Your task to perform on an android device: find photos in the google photos app Image 0: 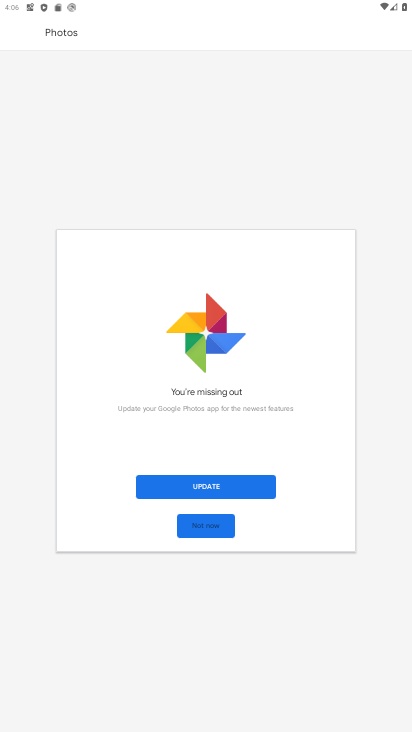
Step 0: press home button
Your task to perform on an android device: find photos in the google photos app Image 1: 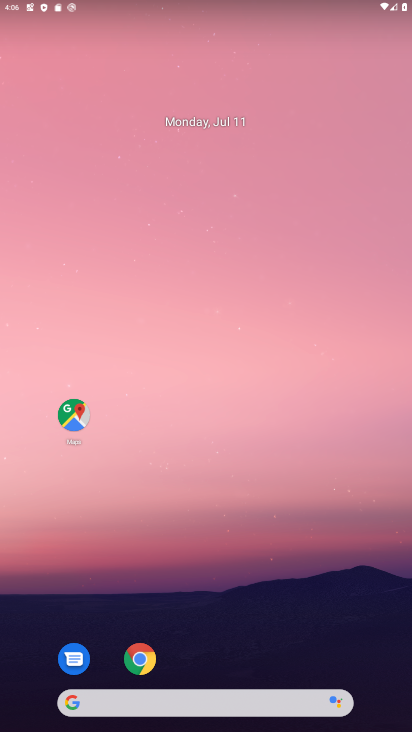
Step 1: drag from (166, 302) to (255, 595)
Your task to perform on an android device: find photos in the google photos app Image 2: 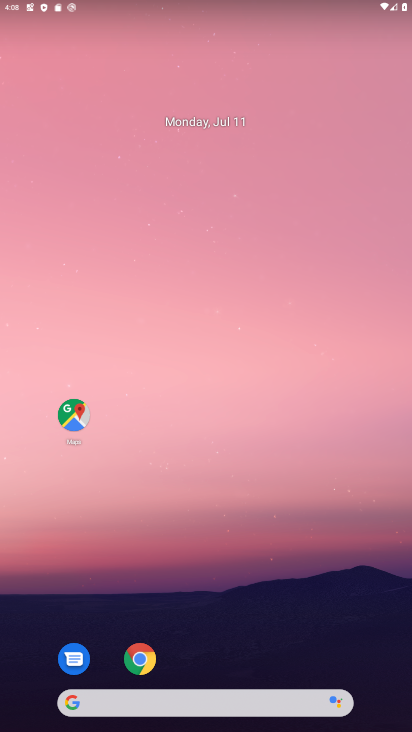
Step 2: drag from (250, 120) to (185, 40)
Your task to perform on an android device: find photos in the google photos app Image 3: 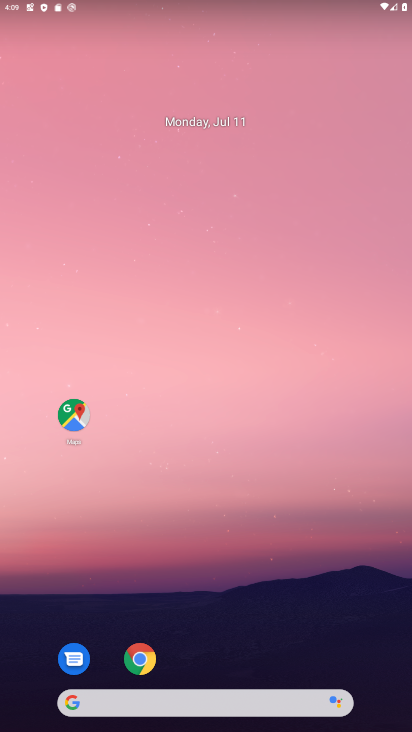
Step 3: drag from (179, 564) to (166, 179)
Your task to perform on an android device: find photos in the google photos app Image 4: 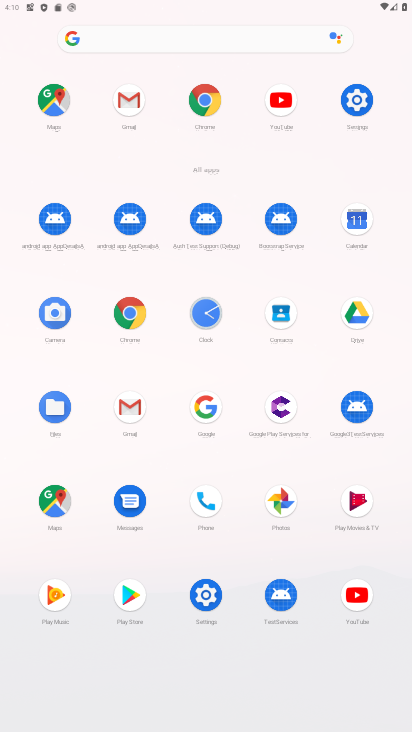
Step 4: click (298, 500)
Your task to perform on an android device: find photos in the google photos app Image 5: 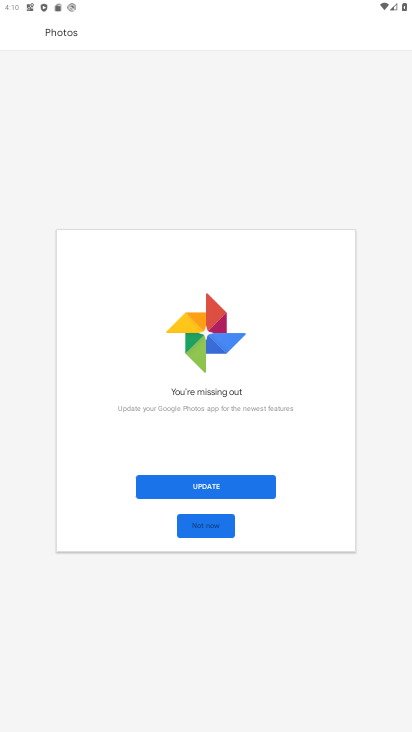
Step 5: click (184, 531)
Your task to perform on an android device: find photos in the google photos app Image 6: 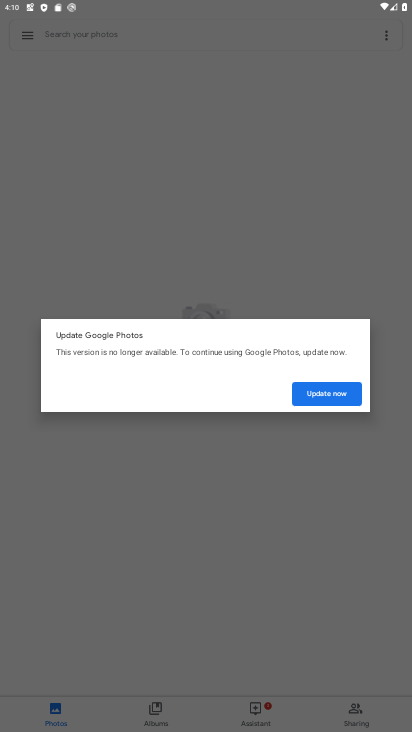
Step 6: click (346, 394)
Your task to perform on an android device: find photos in the google photos app Image 7: 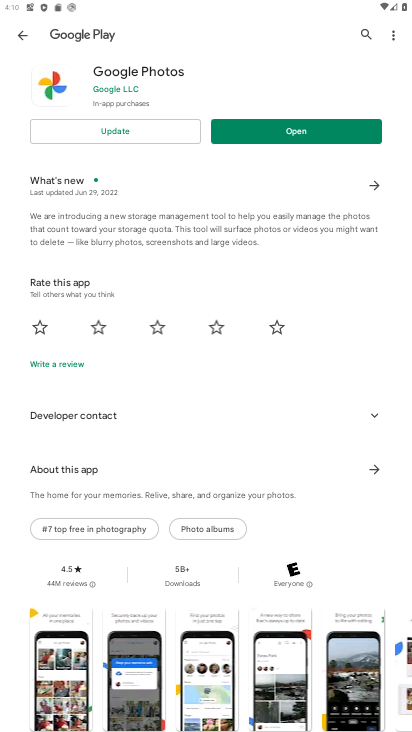
Step 7: click (128, 127)
Your task to perform on an android device: find photos in the google photos app Image 8: 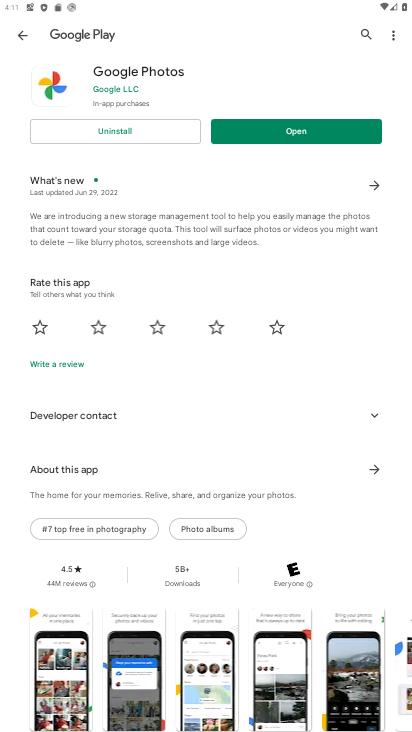
Step 8: click (286, 131)
Your task to perform on an android device: find photos in the google photos app Image 9: 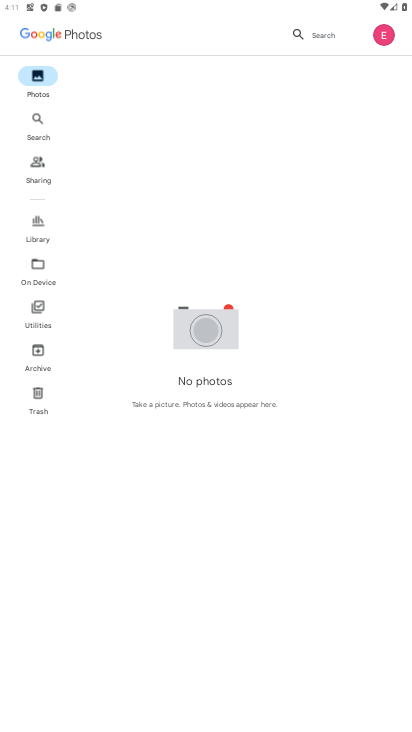
Step 9: task complete